Your task to perform on an android device: set an alarm Image 0: 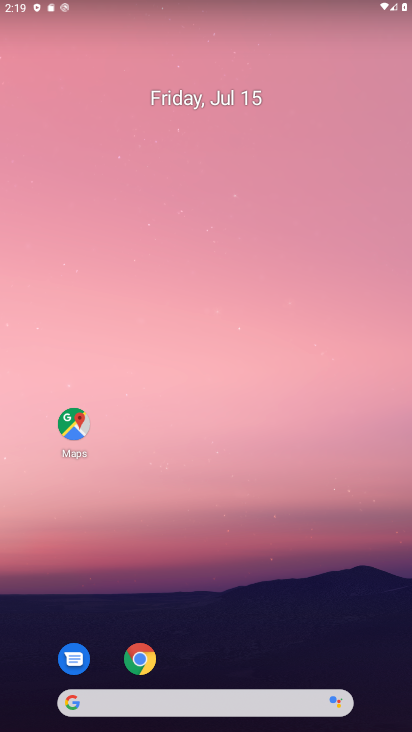
Step 0: drag from (348, 536) to (290, 179)
Your task to perform on an android device: set an alarm Image 1: 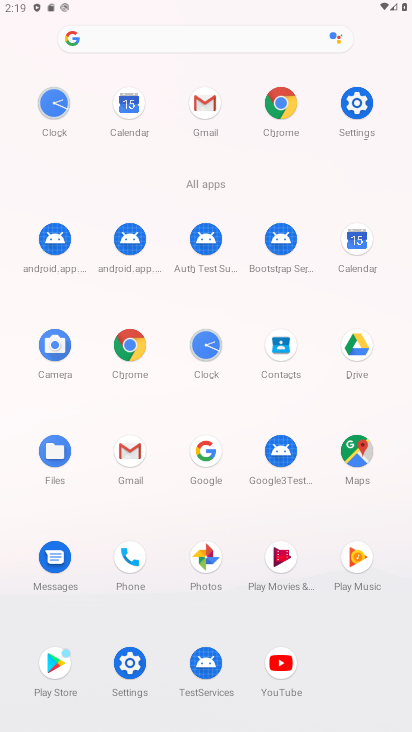
Step 1: click (356, 248)
Your task to perform on an android device: set an alarm Image 2: 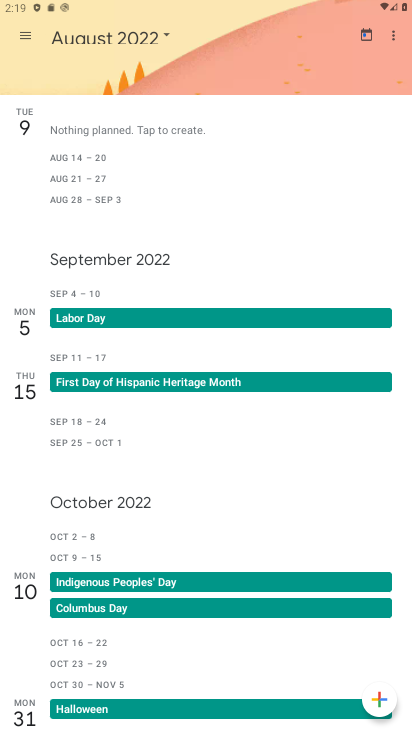
Step 2: press back button
Your task to perform on an android device: set an alarm Image 3: 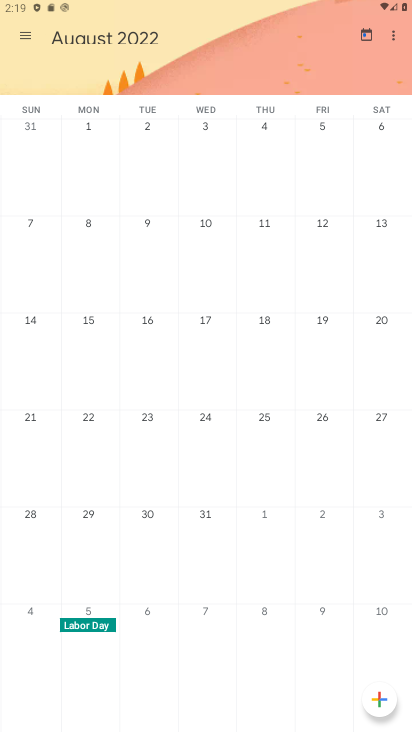
Step 3: press home button
Your task to perform on an android device: set an alarm Image 4: 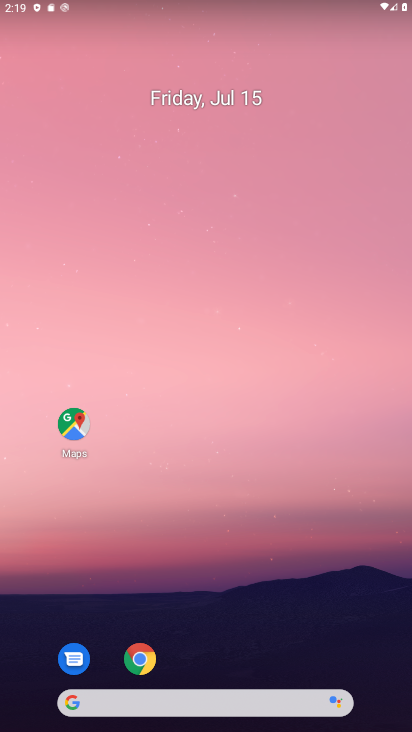
Step 4: drag from (174, 613) to (135, 208)
Your task to perform on an android device: set an alarm Image 5: 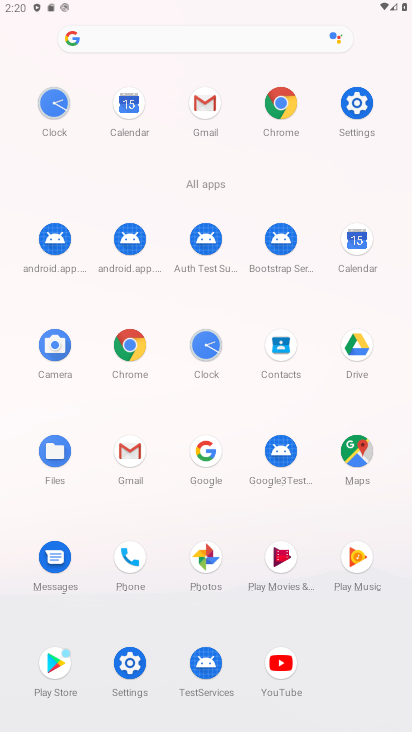
Step 5: click (205, 339)
Your task to perform on an android device: set an alarm Image 6: 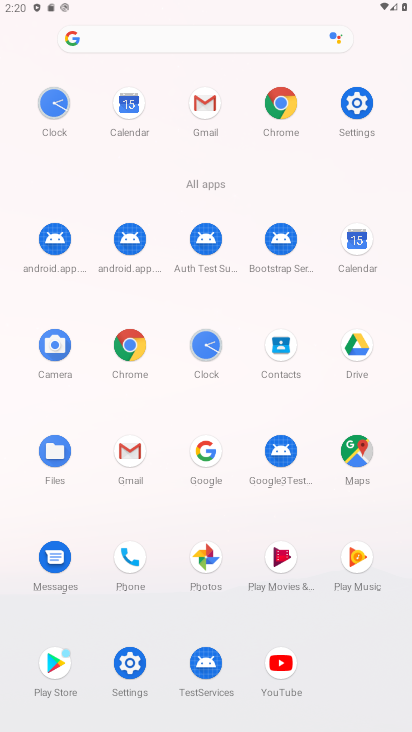
Step 6: click (205, 339)
Your task to perform on an android device: set an alarm Image 7: 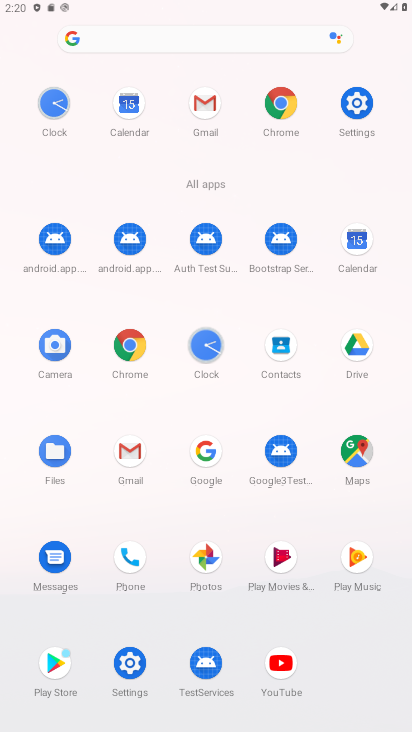
Step 7: click (205, 339)
Your task to perform on an android device: set an alarm Image 8: 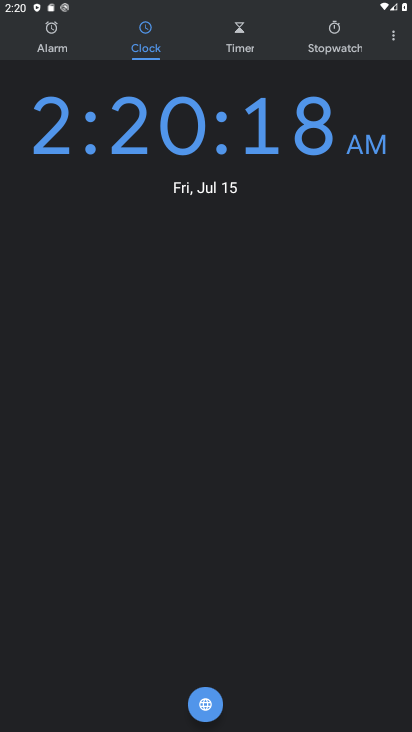
Step 8: click (37, 52)
Your task to perform on an android device: set an alarm Image 9: 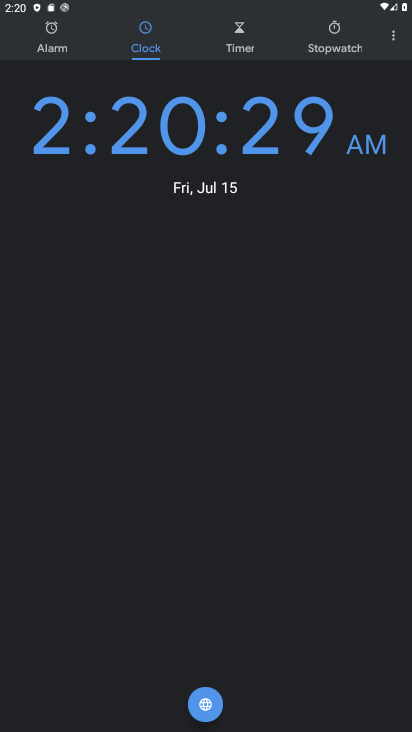
Step 9: click (51, 46)
Your task to perform on an android device: set an alarm Image 10: 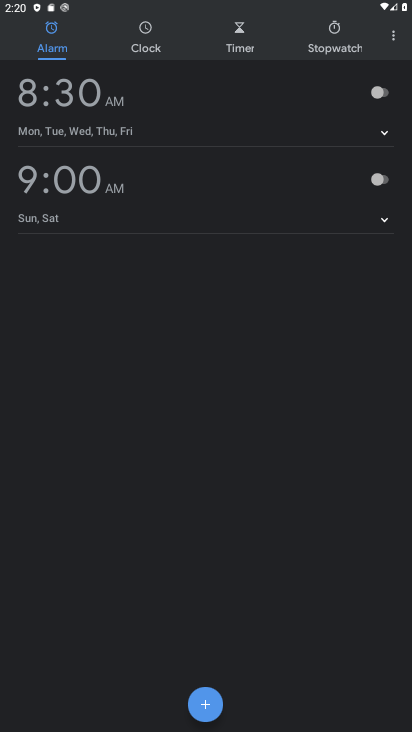
Step 10: click (374, 101)
Your task to perform on an android device: set an alarm Image 11: 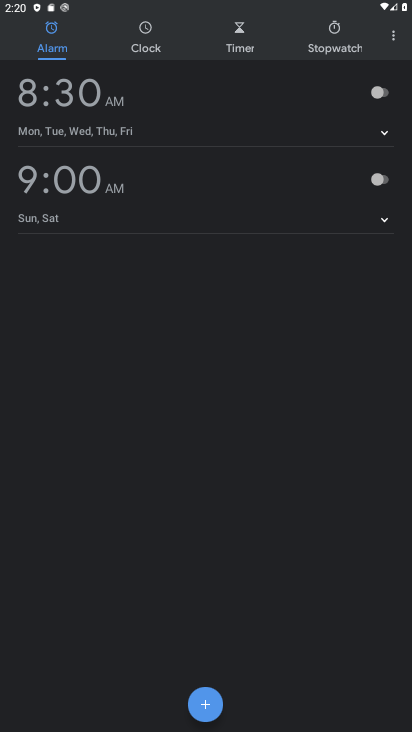
Step 11: task complete